Your task to perform on an android device: toggle wifi Image 0: 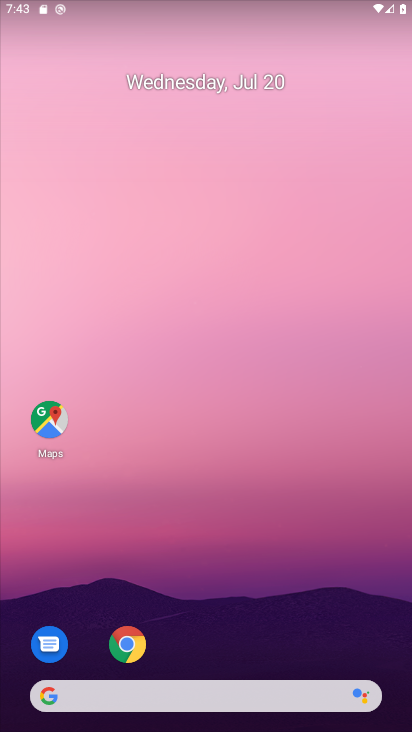
Step 0: drag from (124, 668) to (188, 236)
Your task to perform on an android device: toggle wifi Image 1: 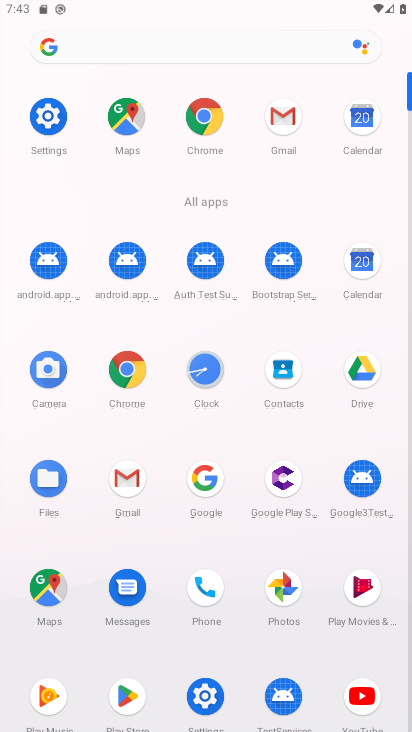
Step 1: click (50, 115)
Your task to perform on an android device: toggle wifi Image 2: 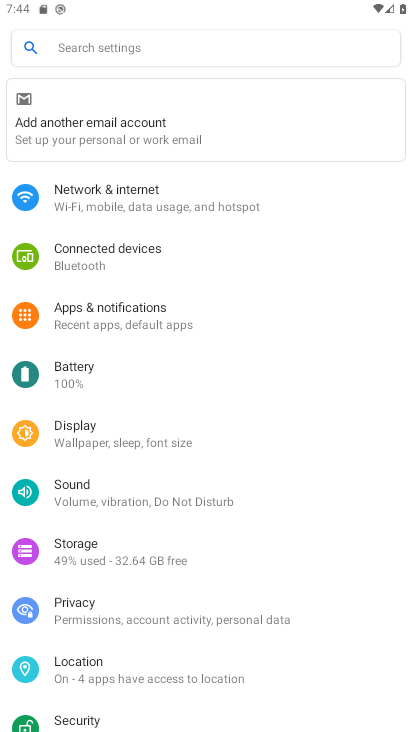
Step 2: click (148, 188)
Your task to perform on an android device: toggle wifi Image 3: 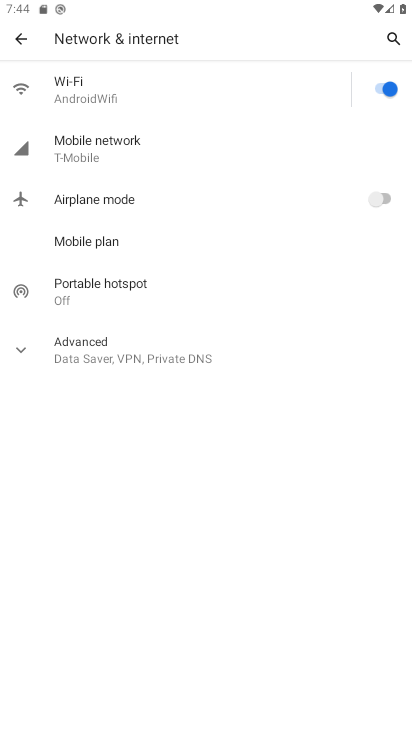
Step 3: click (382, 88)
Your task to perform on an android device: toggle wifi Image 4: 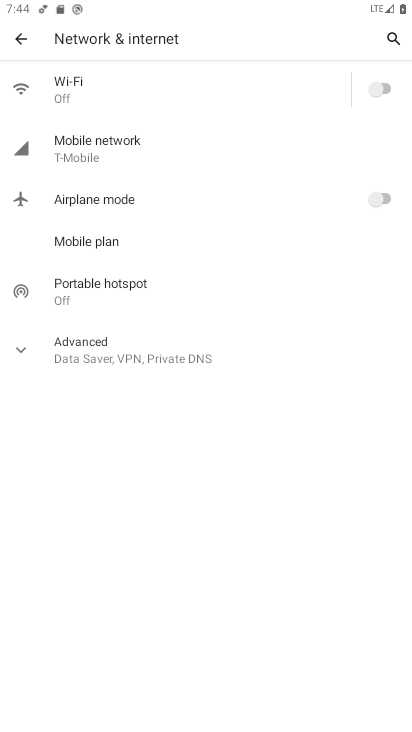
Step 4: task complete